Your task to perform on an android device: add a label to a message in the gmail app Image 0: 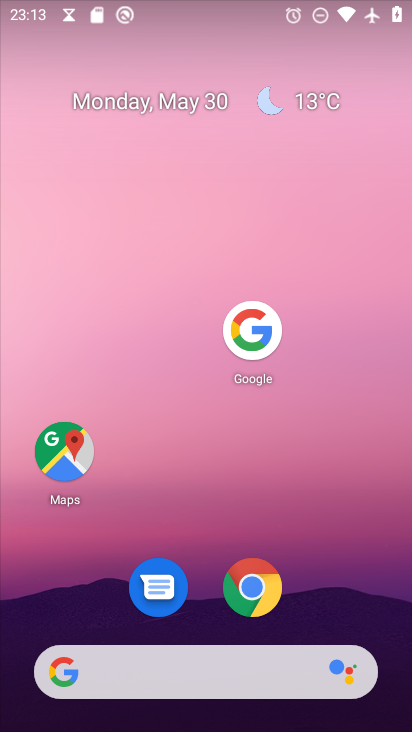
Step 0: press home button
Your task to perform on an android device: add a label to a message in the gmail app Image 1: 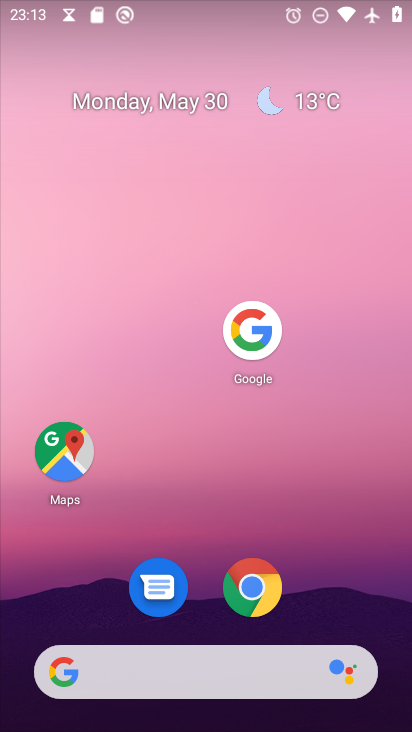
Step 1: drag from (223, 677) to (309, 201)
Your task to perform on an android device: add a label to a message in the gmail app Image 2: 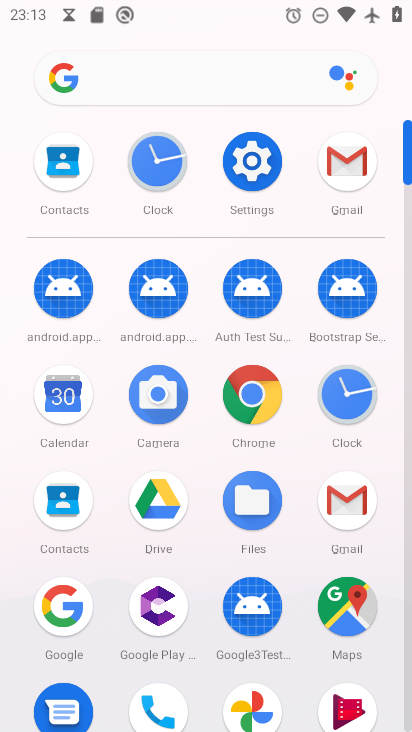
Step 2: click (348, 165)
Your task to perform on an android device: add a label to a message in the gmail app Image 3: 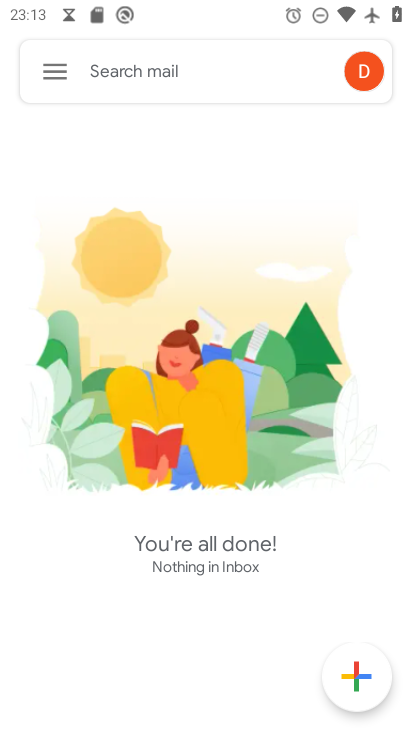
Step 3: task complete